Your task to perform on an android device: Go to ESPN.com Image 0: 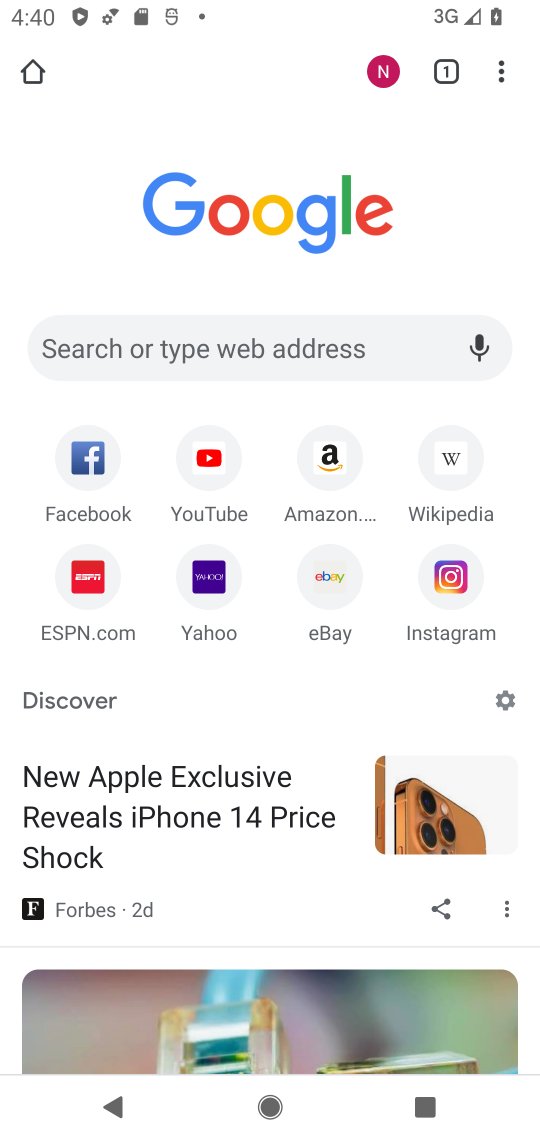
Step 0: press home button
Your task to perform on an android device: Go to ESPN.com Image 1: 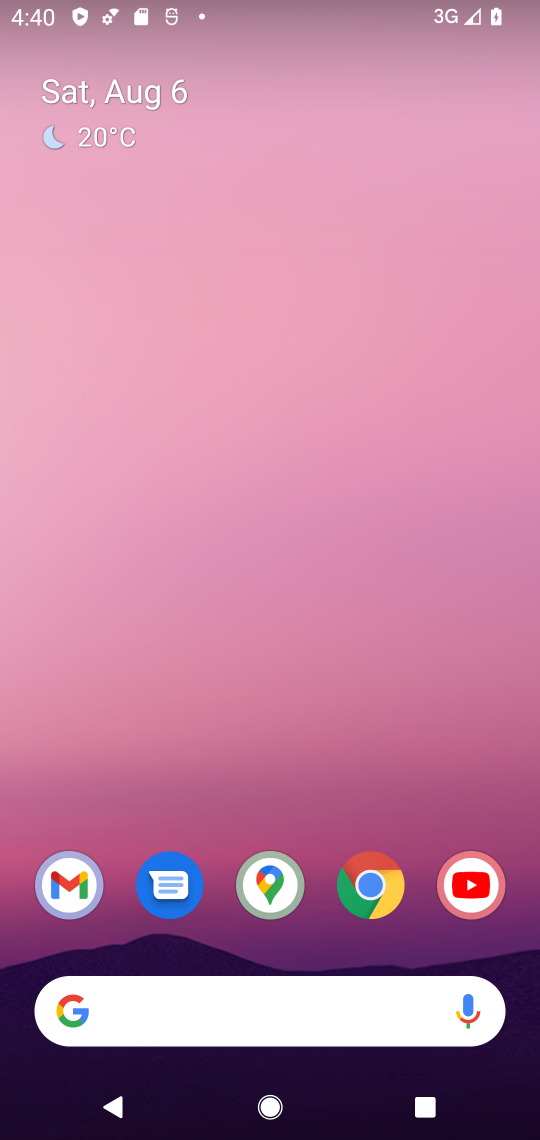
Step 1: drag from (508, 968) to (294, 54)
Your task to perform on an android device: Go to ESPN.com Image 2: 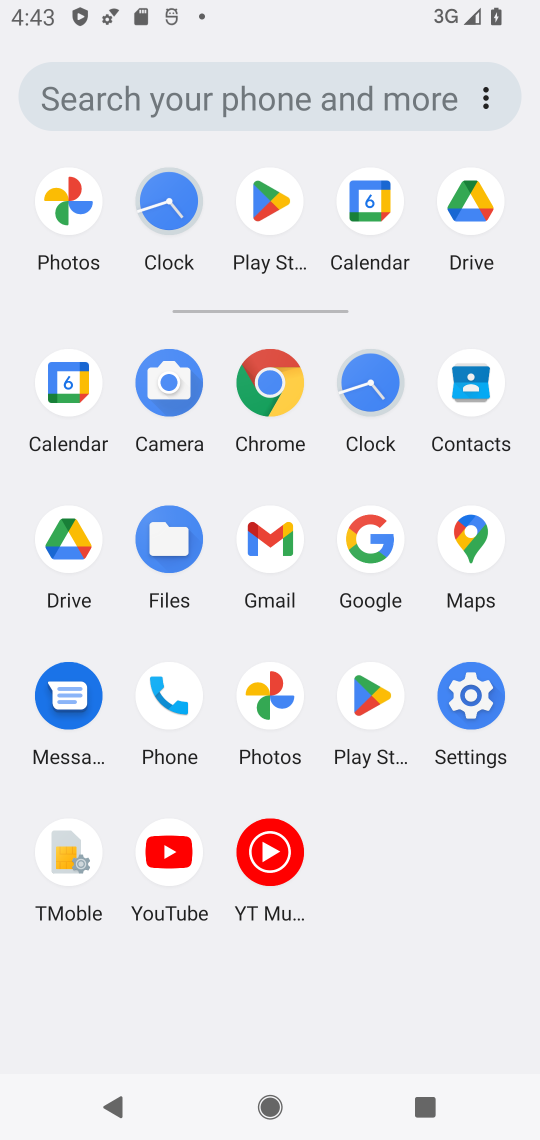
Step 2: click (361, 549)
Your task to perform on an android device: Go to ESPN.com Image 3: 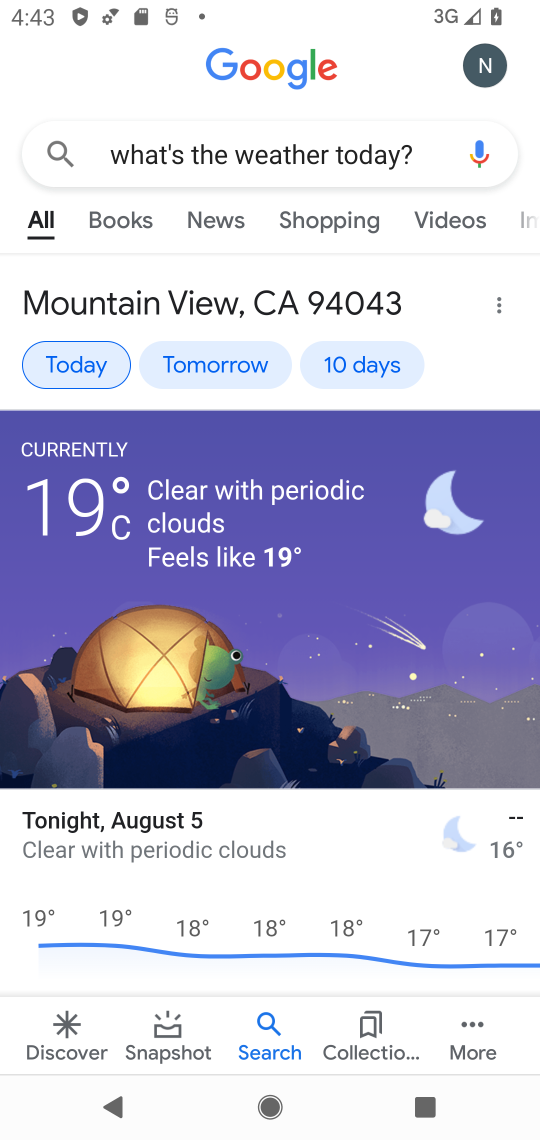
Step 3: press back button
Your task to perform on an android device: Go to ESPN.com Image 4: 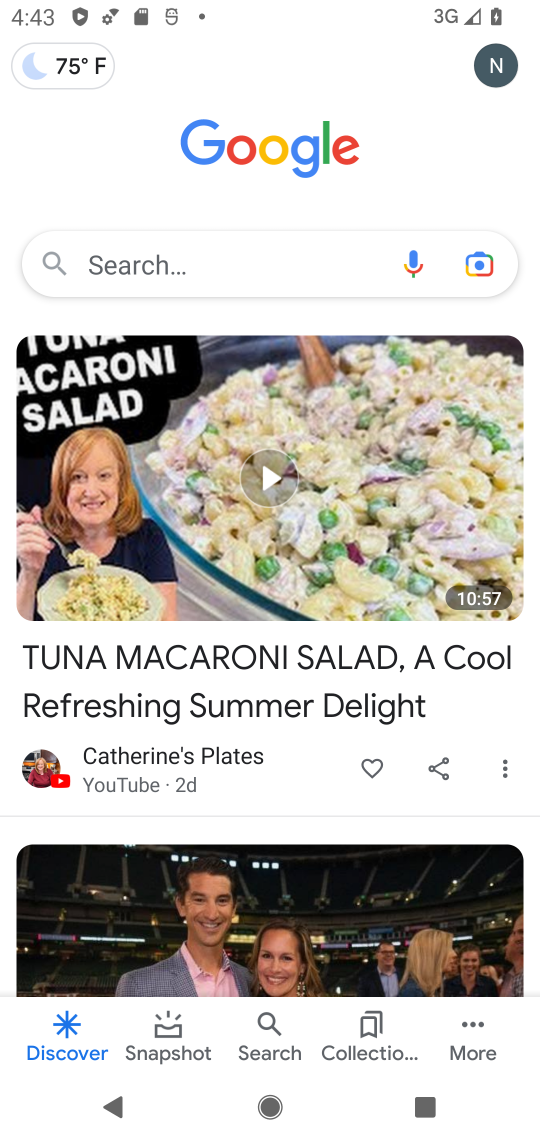
Step 4: click (157, 254)
Your task to perform on an android device: Go to ESPN.com Image 5: 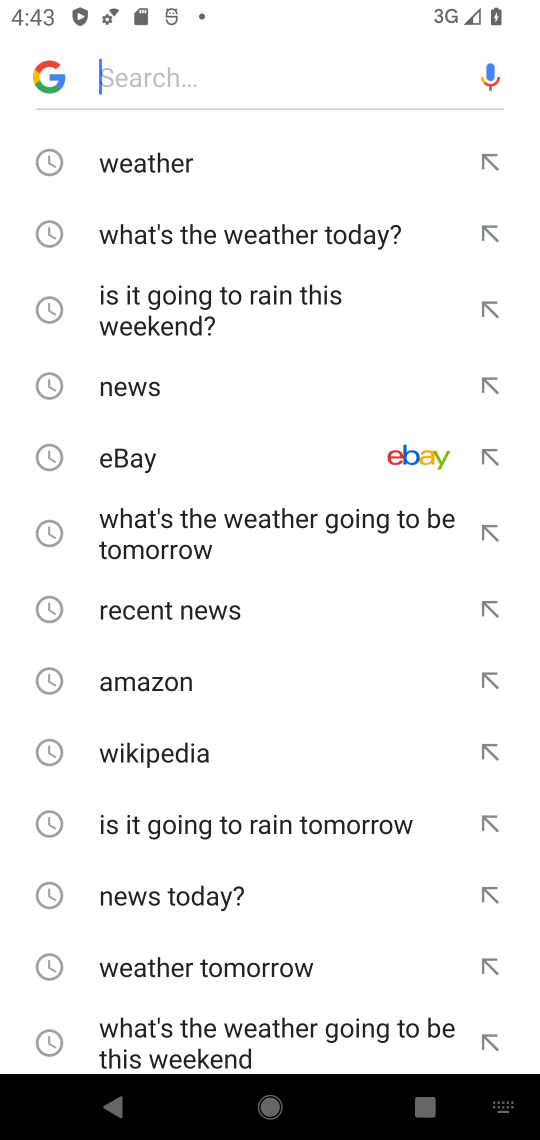
Step 5: type "ESPN.com"
Your task to perform on an android device: Go to ESPN.com Image 6: 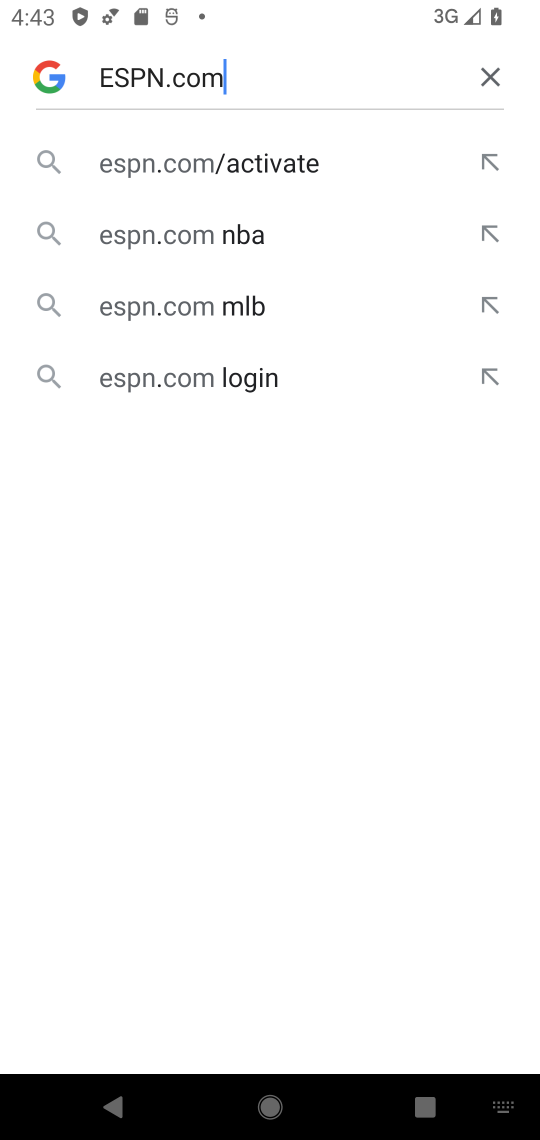
Step 6: click (167, 168)
Your task to perform on an android device: Go to ESPN.com Image 7: 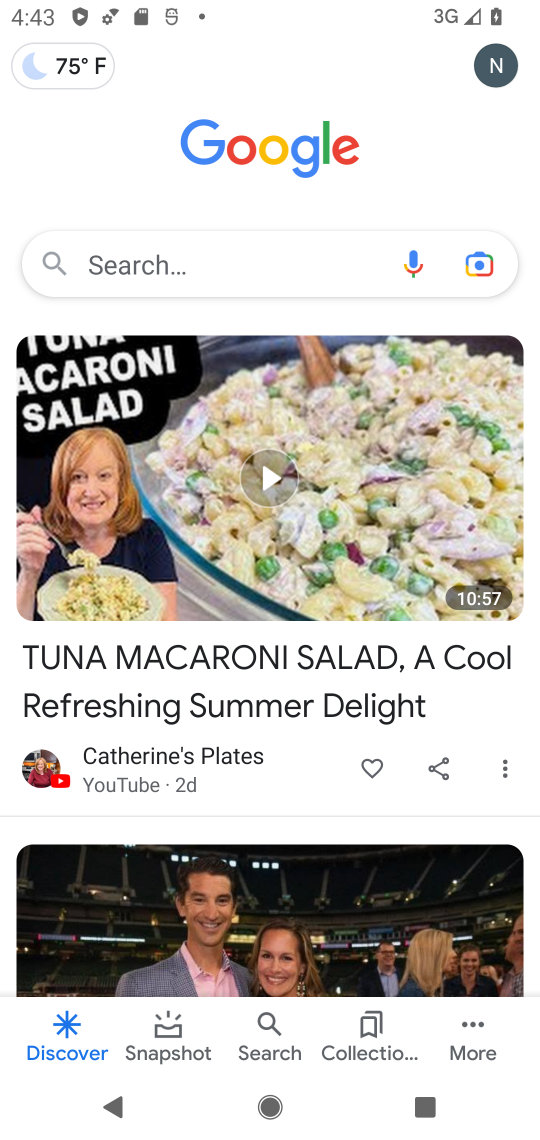
Step 7: task complete